Your task to perform on an android device: Open the Play Movies app and select the watchlist tab. Image 0: 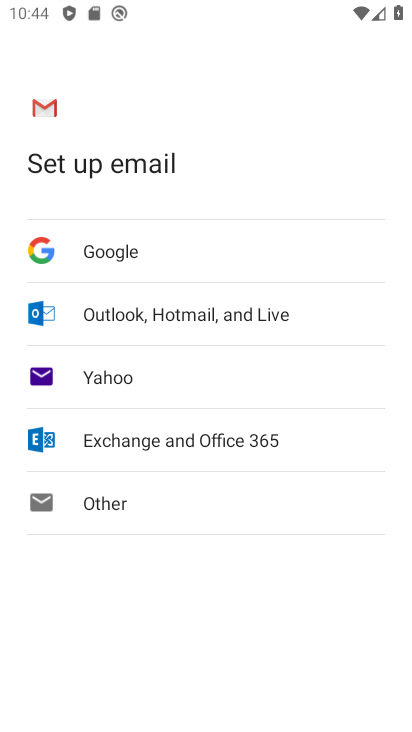
Step 0: drag from (301, 568) to (363, 124)
Your task to perform on an android device: Open the Play Movies app and select the watchlist tab. Image 1: 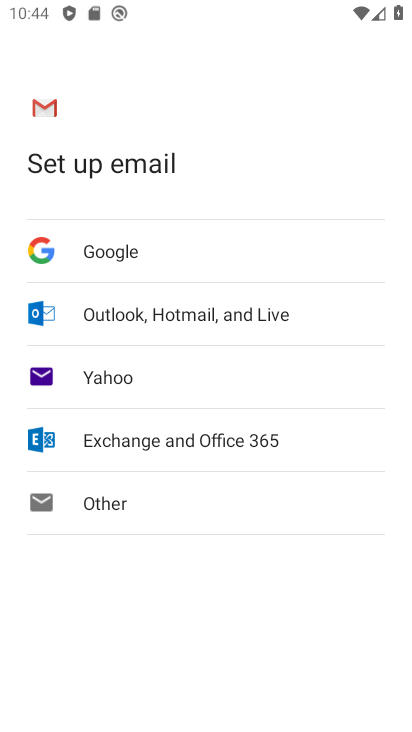
Step 1: press home button
Your task to perform on an android device: Open the Play Movies app and select the watchlist tab. Image 2: 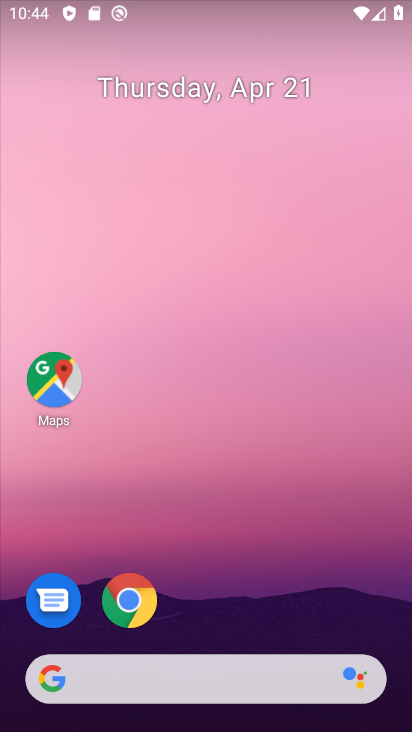
Step 2: drag from (320, 452) to (326, 57)
Your task to perform on an android device: Open the Play Movies app and select the watchlist tab. Image 3: 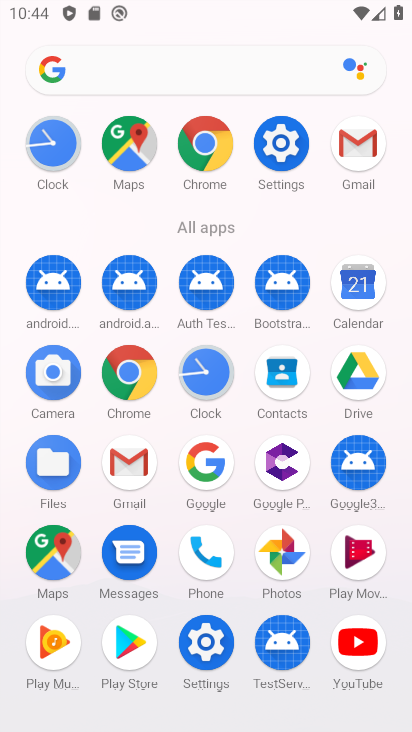
Step 3: click (354, 554)
Your task to perform on an android device: Open the Play Movies app and select the watchlist tab. Image 4: 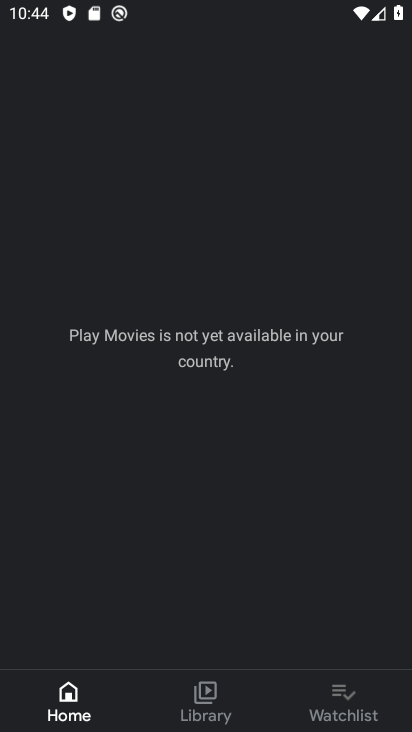
Step 4: click (361, 690)
Your task to perform on an android device: Open the Play Movies app and select the watchlist tab. Image 5: 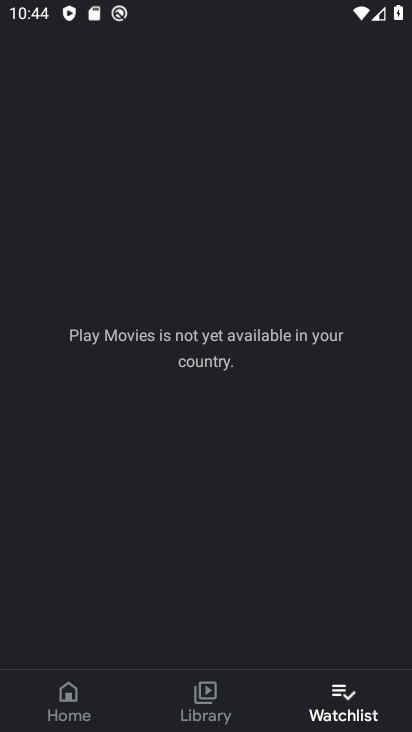
Step 5: task complete